Your task to perform on an android device: toggle sleep mode Image 0: 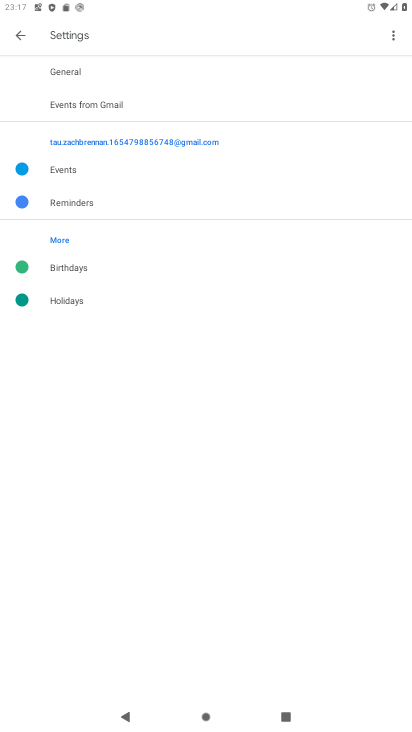
Step 0: drag from (160, 555) to (243, 357)
Your task to perform on an android device: toggle sleep mode Image 1: 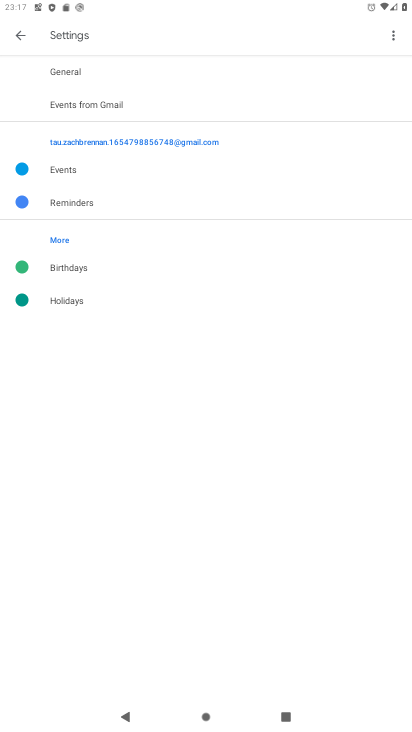
Step 1: press home button
Your task to perform on an android device: toggle sleep mode Image 2: 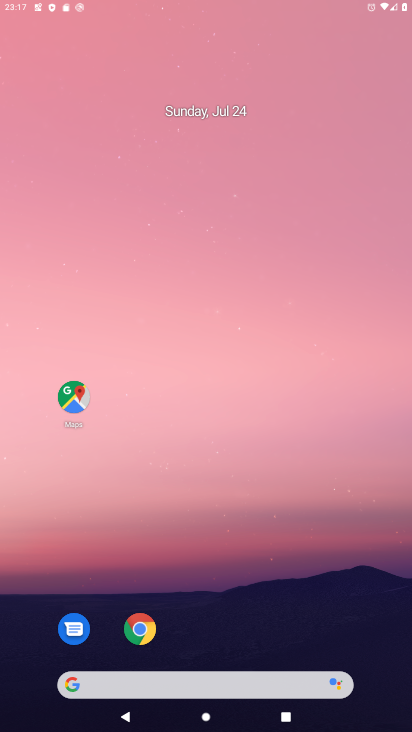
Step 2: drag from (212, 633) to (345, 152)
Your task to perform on an android device: toggle sleep mode Image 3: 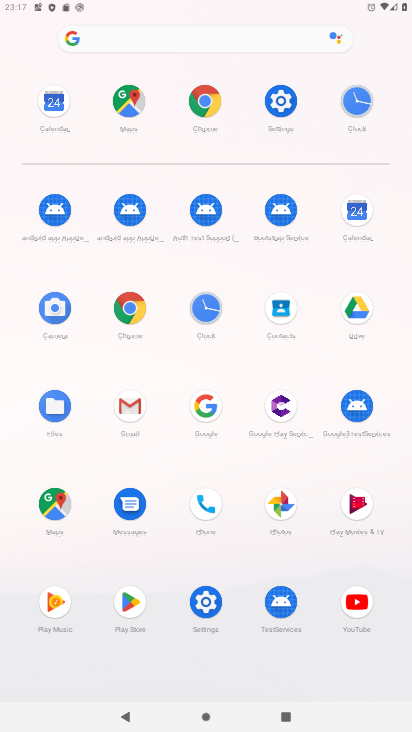
Step 3: click (201, 601)
Your task to perform on an android device: toggle sleep mode Image 4: 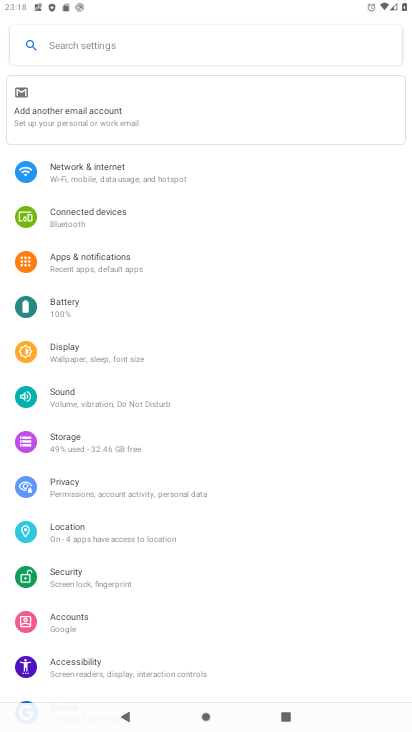
Step 4: click (126, 260)
Your task to perform on an android device: toggle sleep mode Image 5: 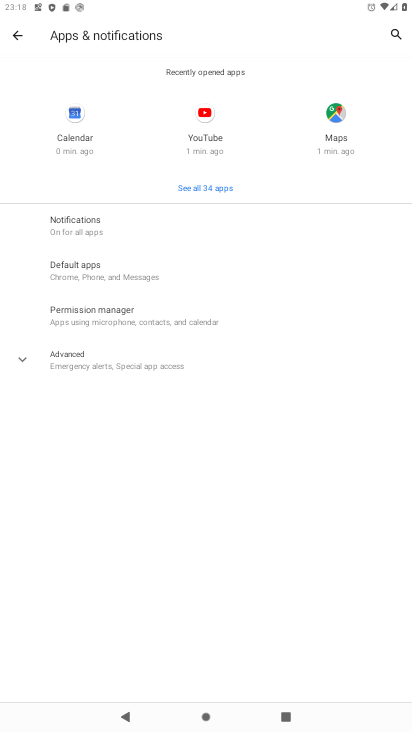
Step 5: click (22, 41)
Your task to perform on an android device: toggle sleep mode Image 6: 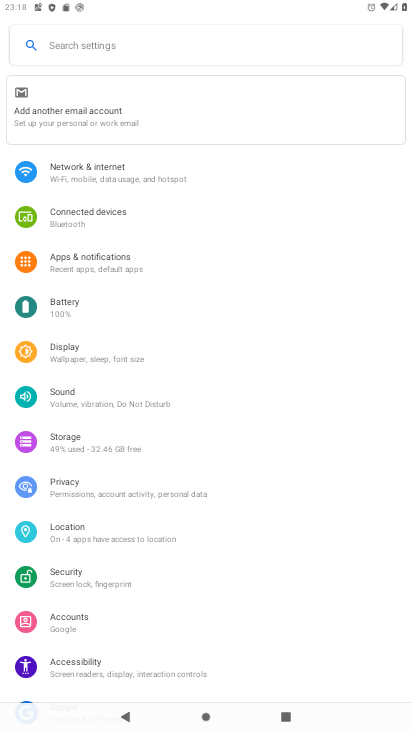
Step 6: click (68, 352)
Your task to perform on an android device: toggle sleep mode Image 7: 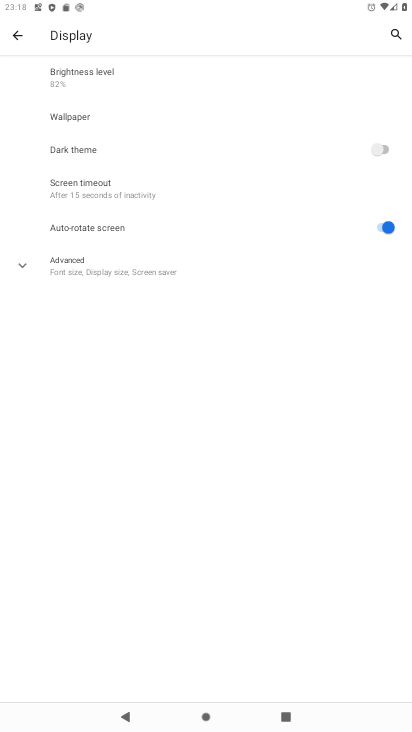
Step 7: click (160, 192)
Your task to perform on an android device: toggle sleep mode Image 8: 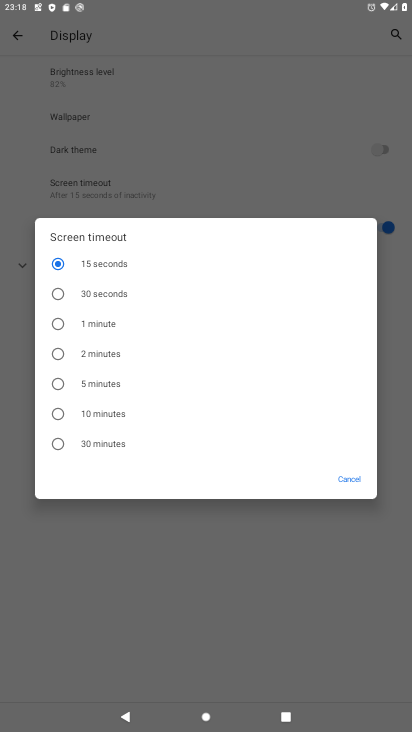
Step 8: click (83, 322)
Your task to perform on an android device: toggle sleep mode Image 9: 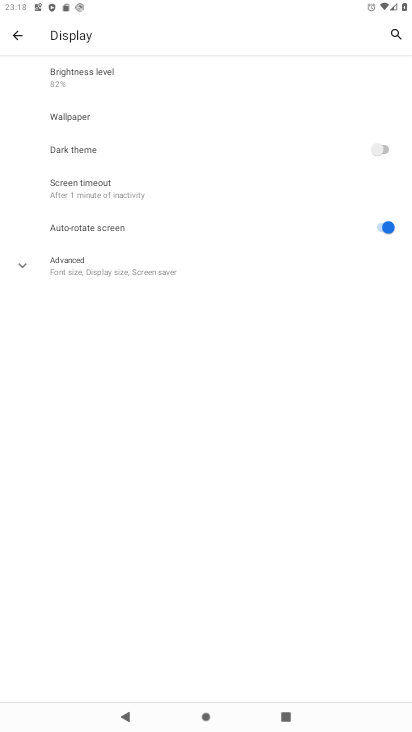
Step 9: task complete